Your task to perform on an android device: turn on data saver in the chrome app Image 0: 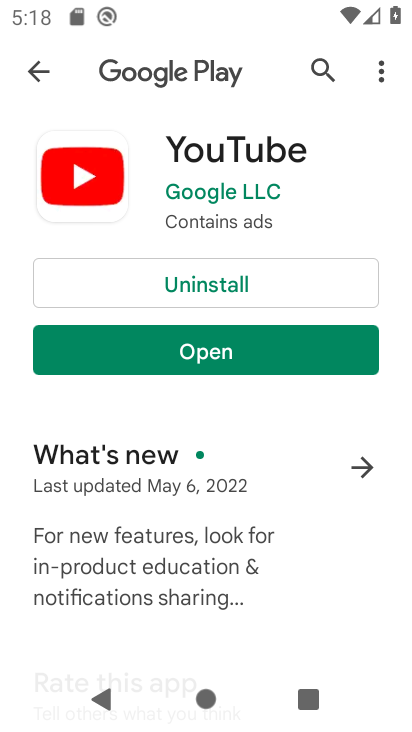
Step 0: press home button
Your task to perform on an android device: turn on data saver in the chrome app Image 1: 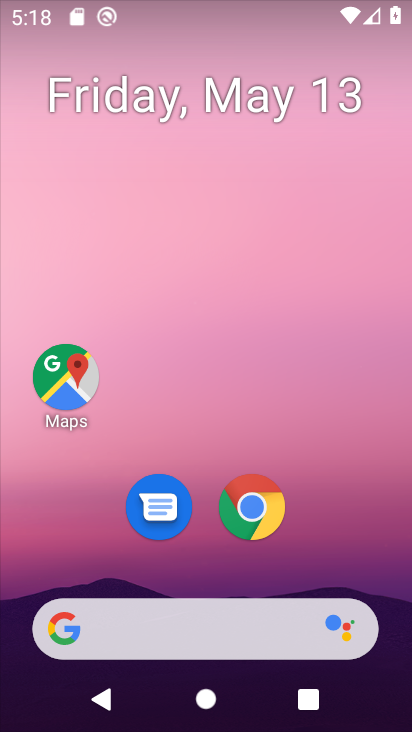
Step 1: click (271, 515)
Your task to perform on an android device: turn on data saver in the chrome app Image 2: 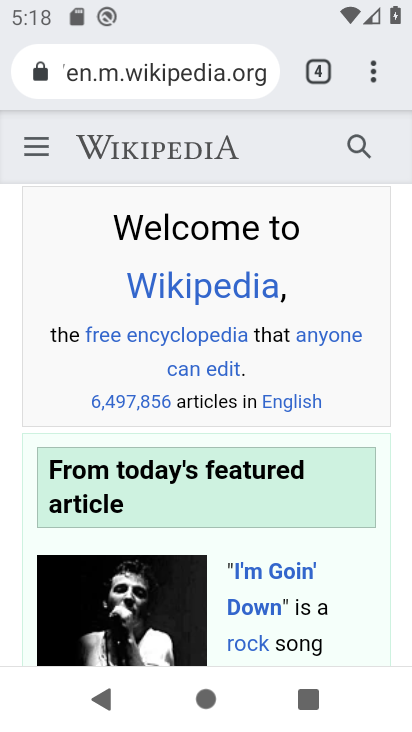
Step 2: click (353, 72)
Your task to perform on an android device: turn on data saver in the chrome app Image 3: 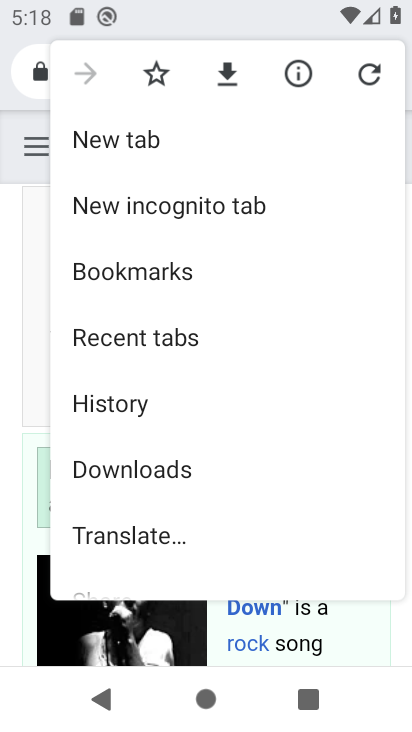
Step 3: drag from (222, 495) to (211, 188)
Your task to perform on an android device: turn on data saver in the chrome app Image 4: 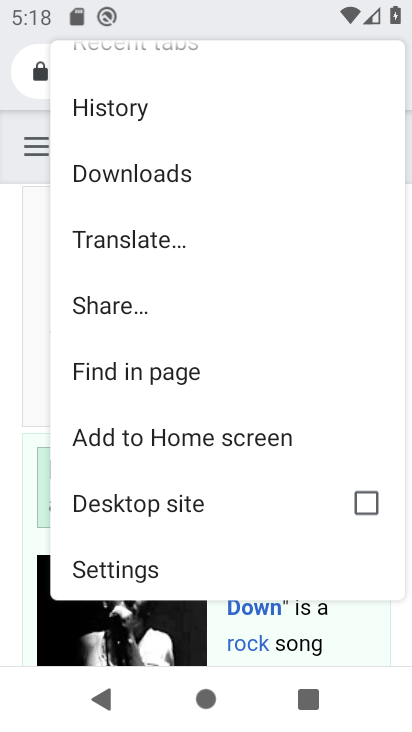
Step 4: click (155, 553)
Your task to perform on an android device: turn on data saver in the chrome app Image 5: 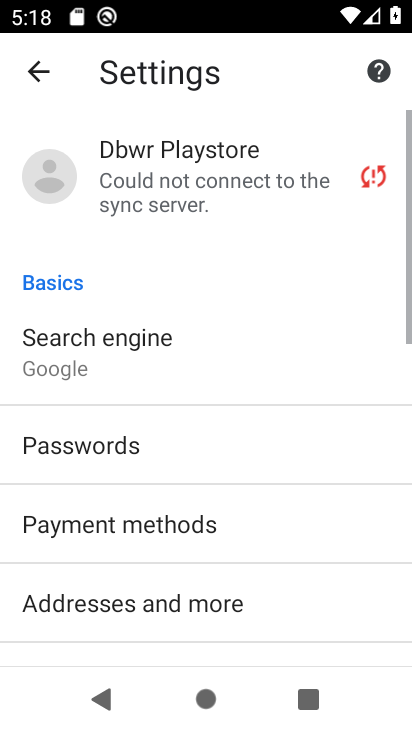
Step 5: drag from (208, 595) to (185, 165)
Your task to perform on an android device: turn on data saver in the chrome app Image 6: 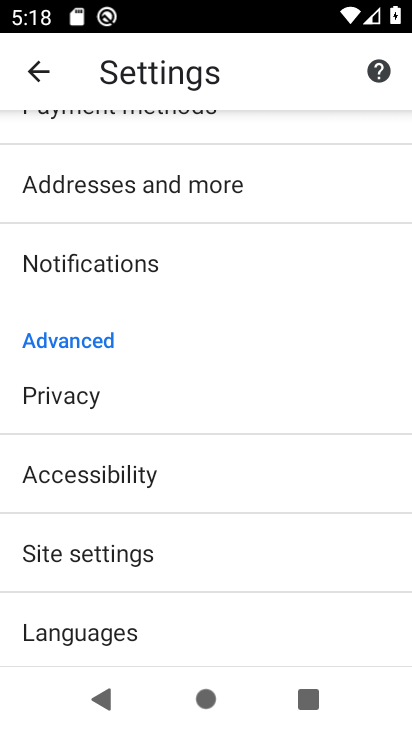
Step 6: drag from (163, 612) to (173, 357)
Your task to perform on an android device: turn on data saver in the chrome app Image 7: 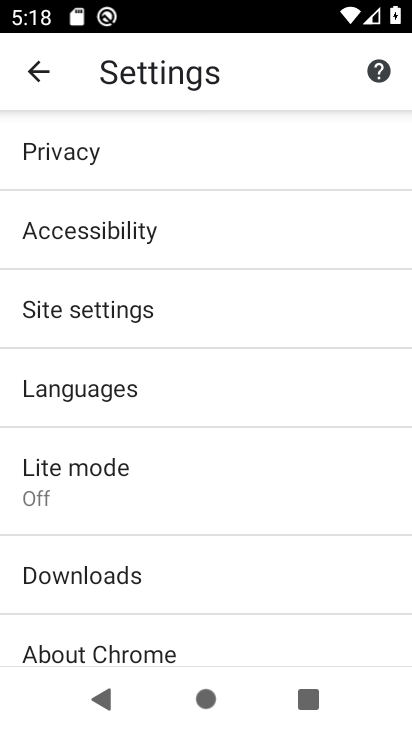
Step 7: click (141, 467)
Your task to perform on an android device: turn on data saver in the chrome app Image 8: 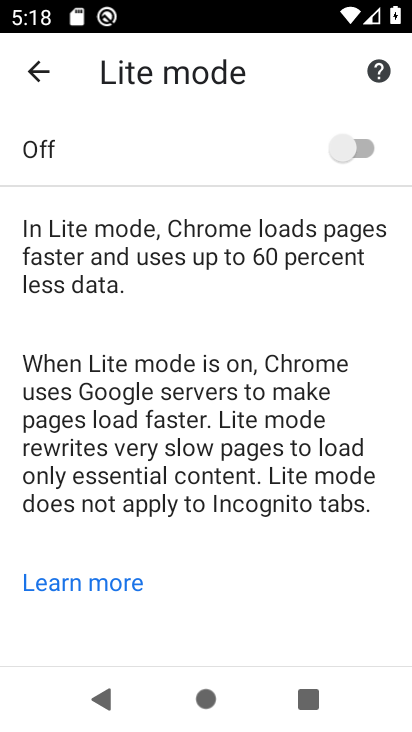
Step 8: click (348, 142)
Your task to perform on an android device: turn on data saver in the chrome app Image 9: 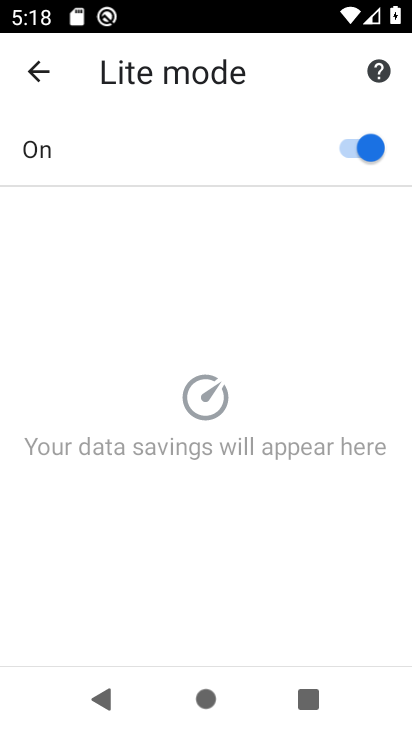
Step 9: task complete